Your task to perform on an android device: turn pop-ups off in chrome Image 0: 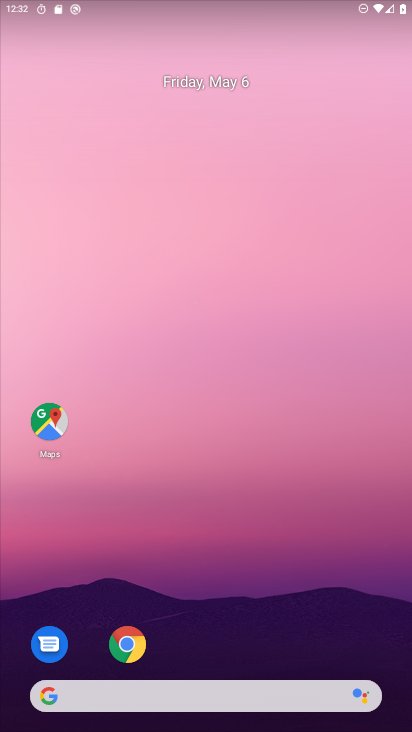
Step 0: drag from (322, 622) to (339, 122)
Your task to perform on an android device: turn pop-ups off in chrome Image 1: 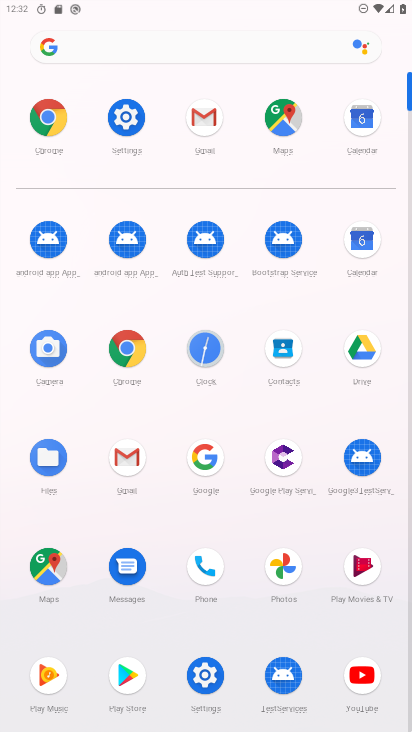
Step 1: click (128, 343)
Your task to perform on an android device: turn pop-ups off in chrome Image 2: 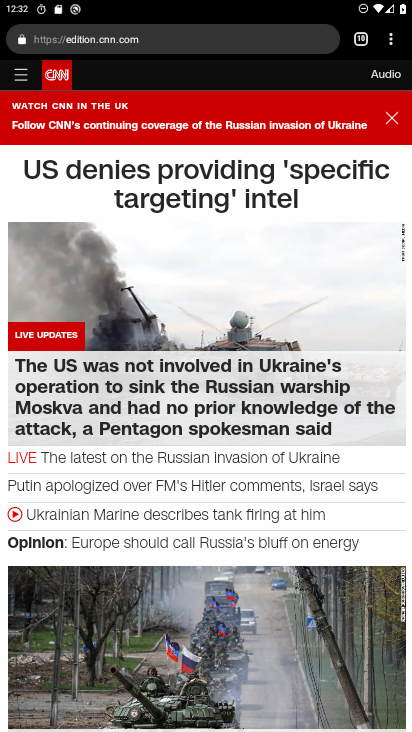
Step 2: drag from (393, 36) to (252, 438)
Your task to perform on an android device: turn pop-ups off in chrome Image 3: 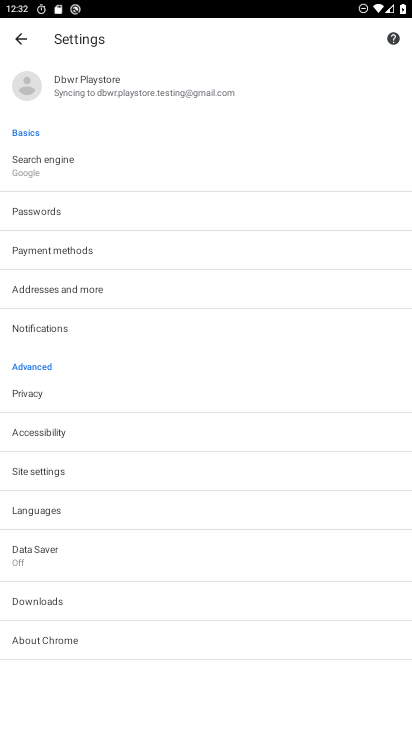
Step 3: click (69, 471)
Your task to perform on an android device: turn pop-ups off in chrome Image 4: 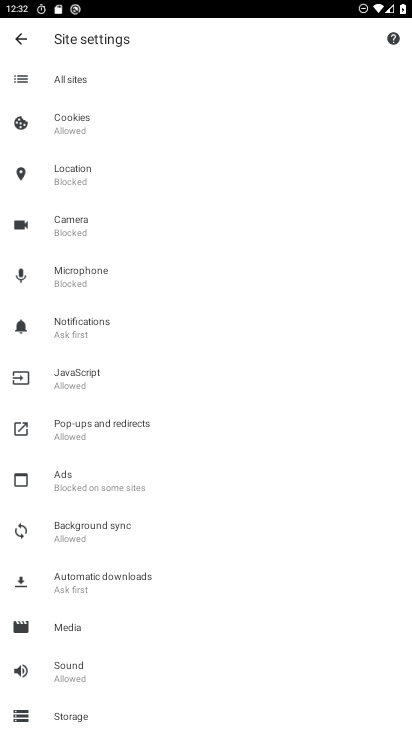
Step 4: click (128, 430)
Your task to perform on an android device: turn pop-ups off in chrome Image 5: 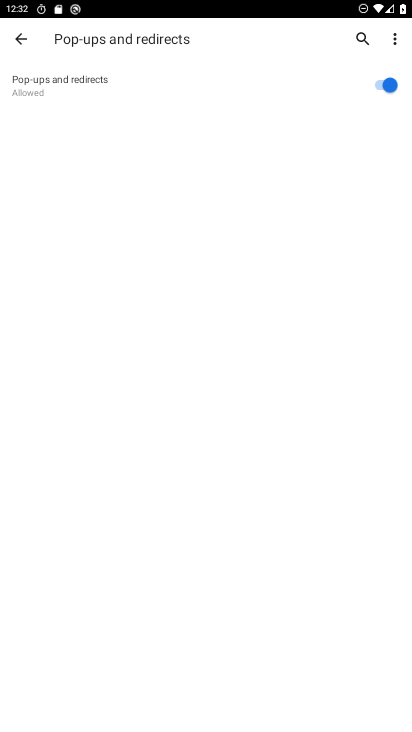
Step 5: click (381, 87)
Your task to perform on an android device: turn pop-ups off in chrome Image 6: 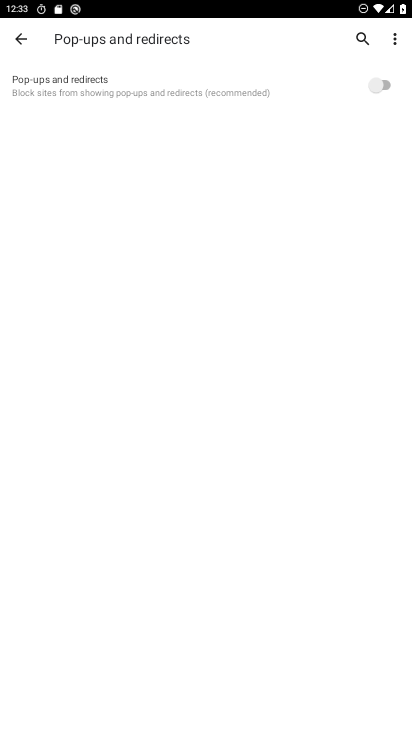
Step 6: task complete